Your task to perform on an android device: open the mobile data screen to see how much data has been used Image 0: 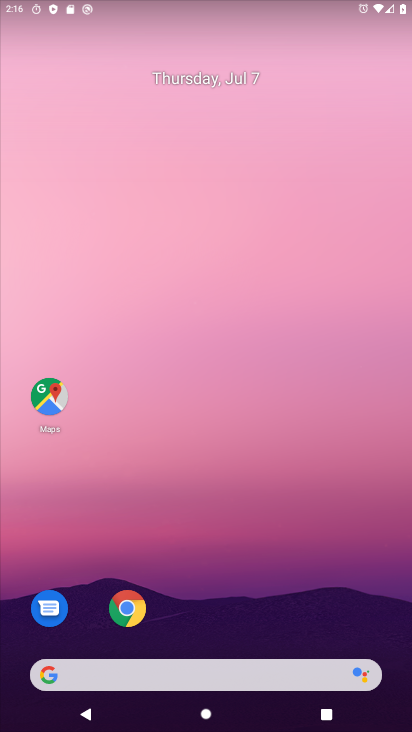
Step 0: drag from (243, 724) to (218, 71)
Your task to perform on an android device: open the mobile data screen to see how much data has been used Image 1: 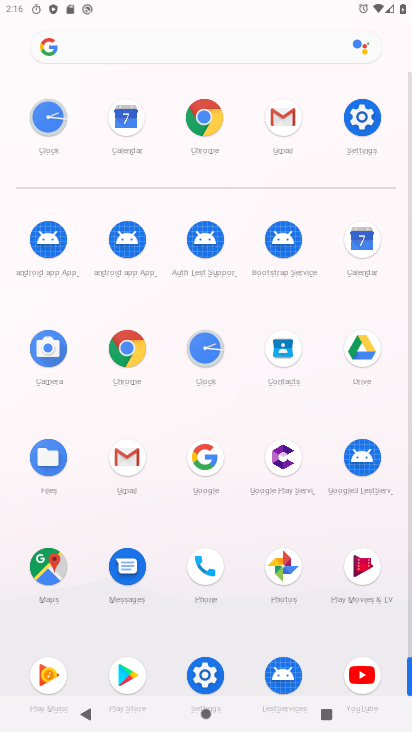
Step 1: click (364, 115)
Your task to perform on an android device: open the mobile data screen to see how much data has been used Image 2: 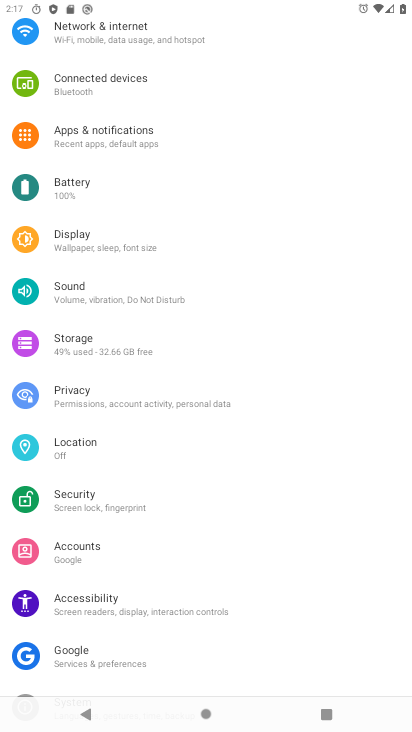
Step 2: click (123, 33)
Your task to perform on an android device: open the mobile data screen to see how much data has been used Image 3: 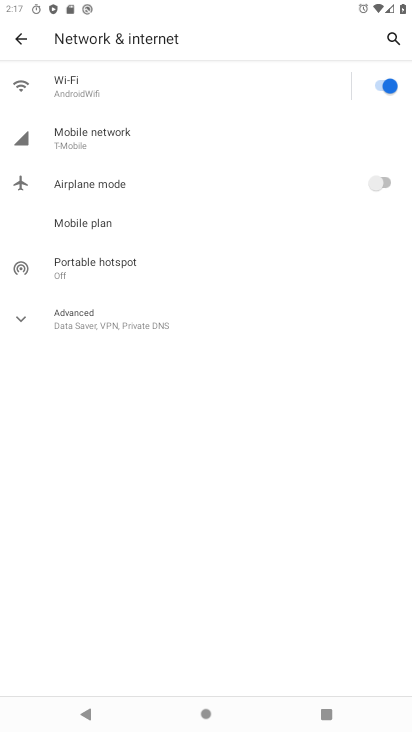
Step 3: click (80, 132)
Your task to perform on an android device: open the mobile data screen to see how much data has been used Image 4: 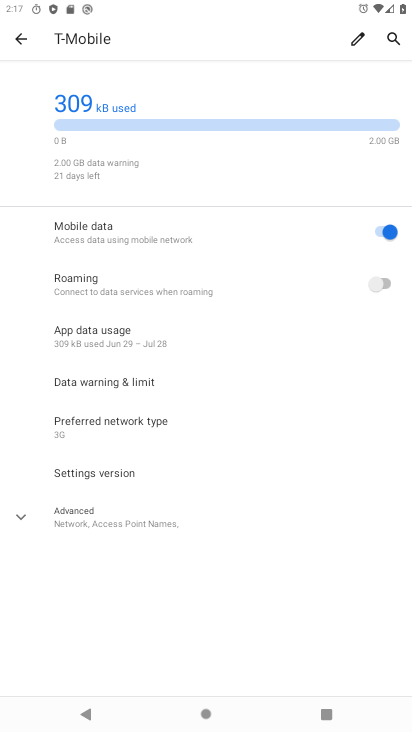
Step 4: click (95, 329)
Your task to perform on an android device: open the mobile data screen to see how much data has been used Image 5: 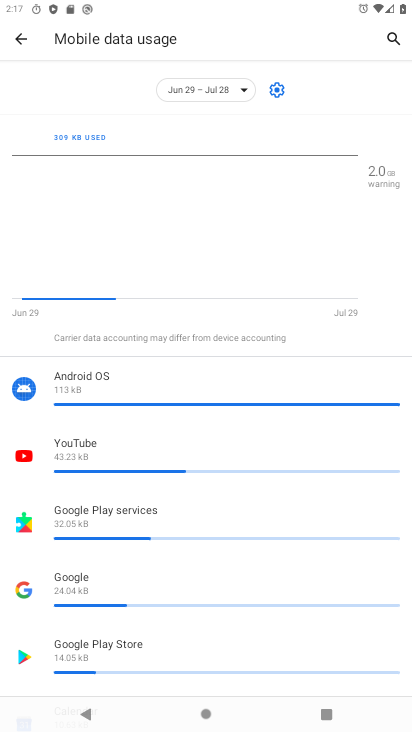
Step 5: task complete